Your task to perform on an android device: change the clock style Image 0: 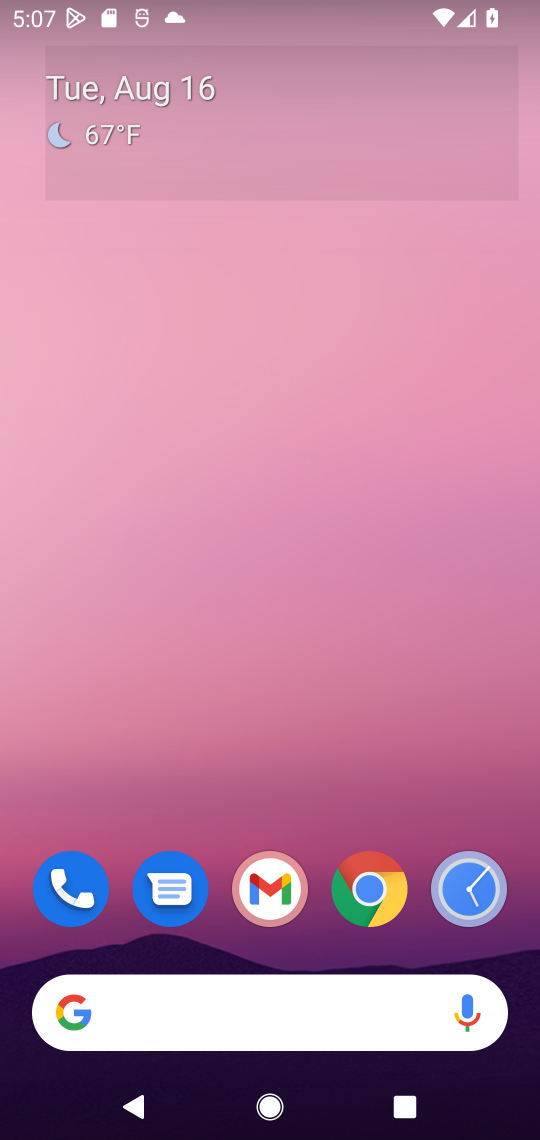
Step 0: click (456, 863)
Your task to perform on an android device: change the clock style Image 1: 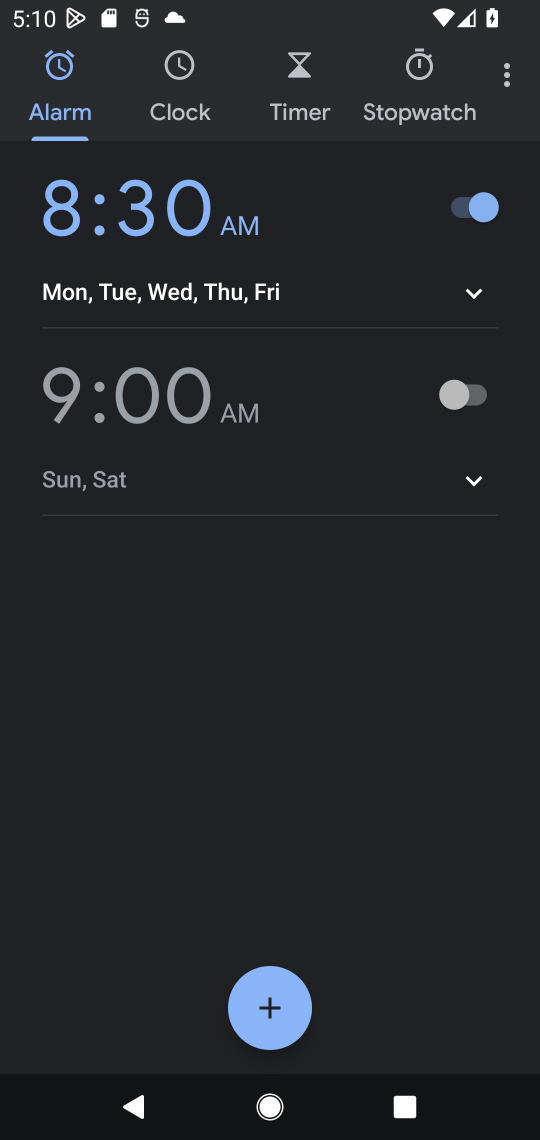
Step 1: click (506, 70)
Your task to perform on an android device: change the clock style Image 2: 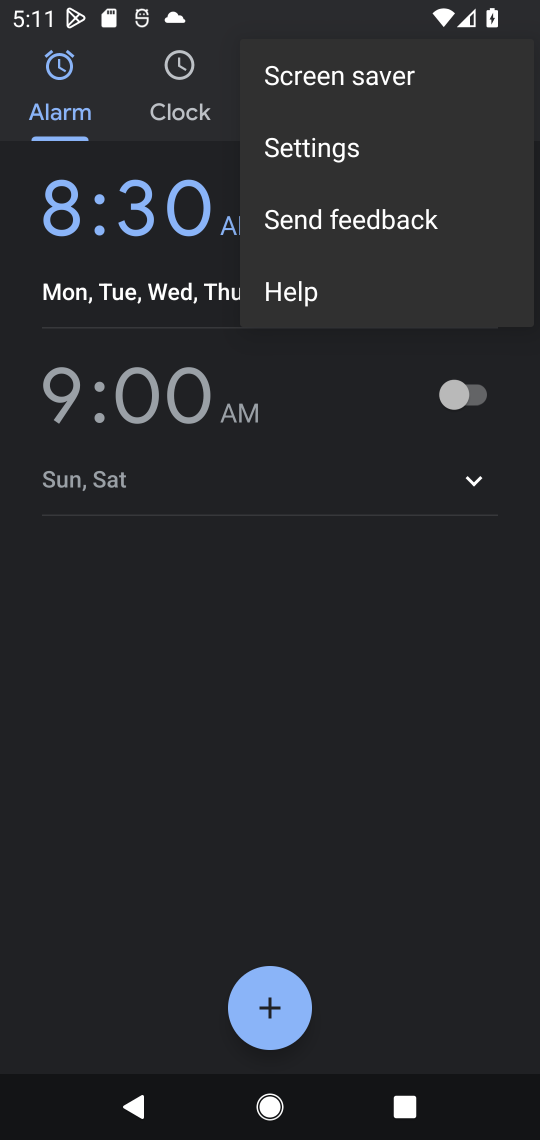
Step 2: click (360, 141)
Your task to perform on an android device: change the clock style Image 3: 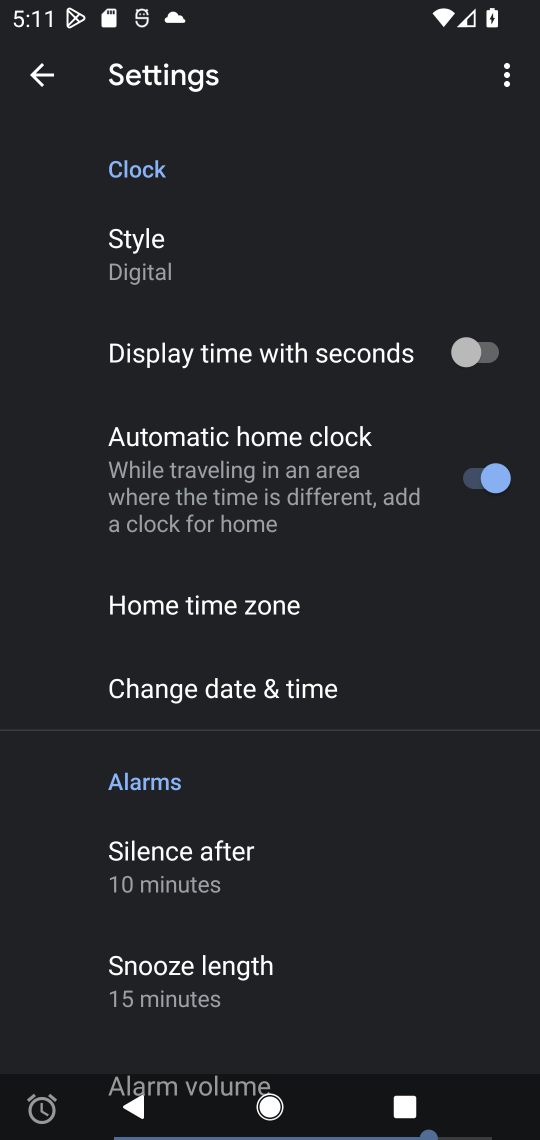
Step 3: click (245, 230)
Your task to perform on an android device: change the clock style Image 4: 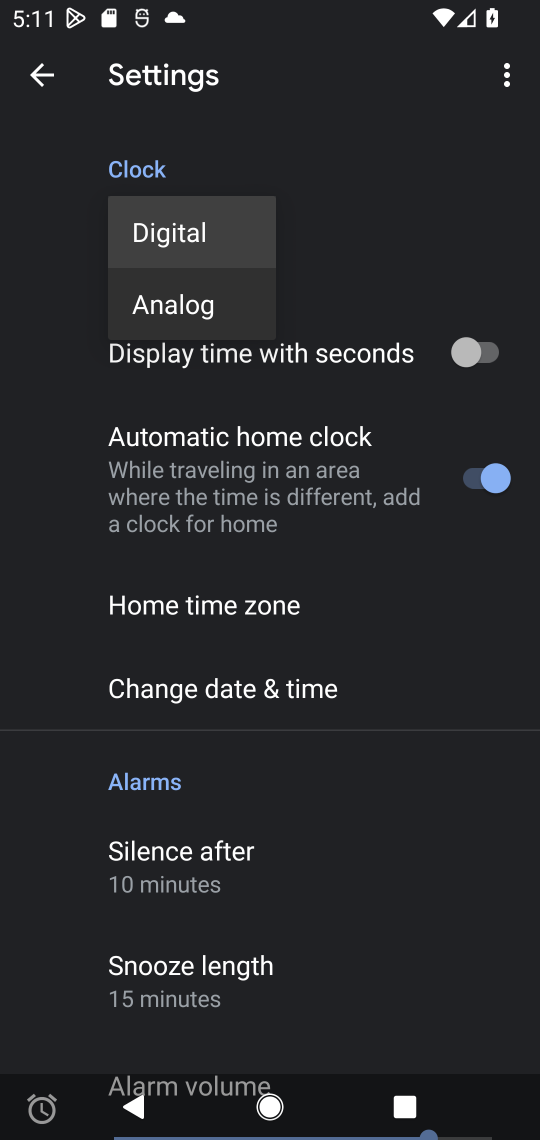
Step 4: click (207, 308)
Your task to perform on an android device: change the clock style Image 5: 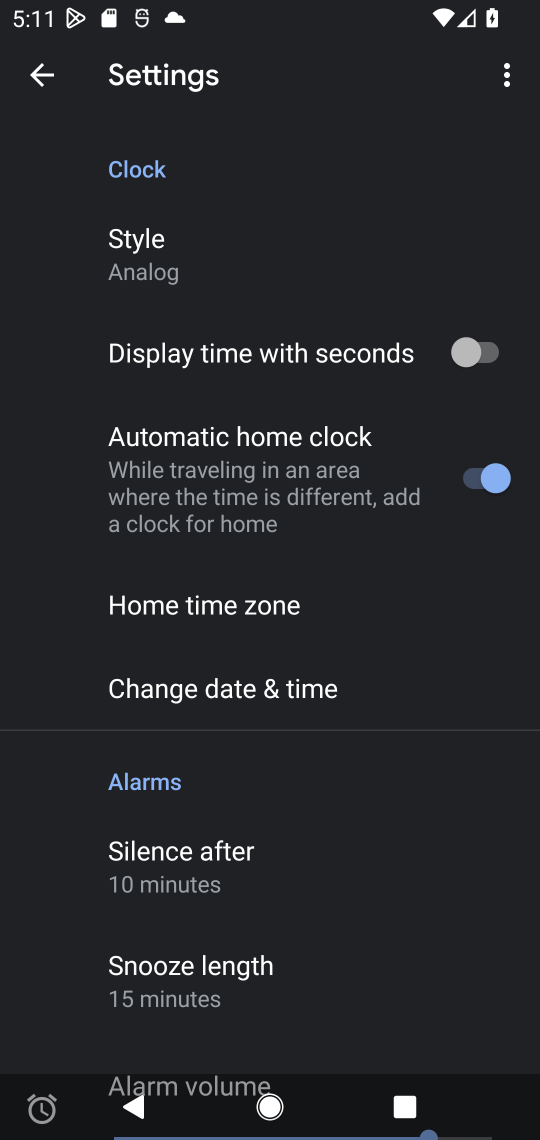
Step 5: task complete